Your task to perform on an android device: turn pop-ups on in chrome Image 0: 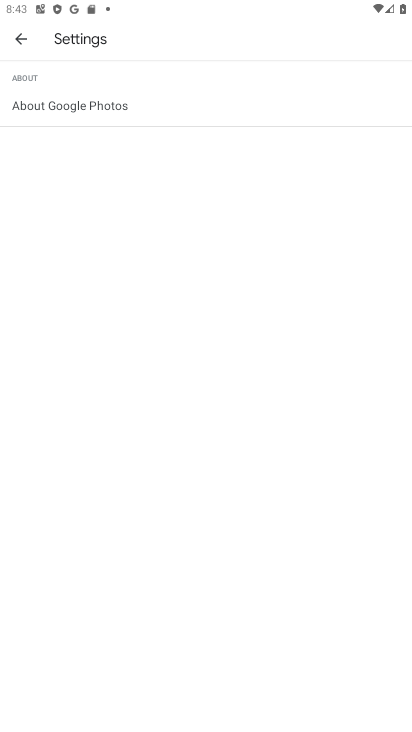
Step 0: press back button
Your task to perform on an android device: turn pop-ups on in chrome Image 1: 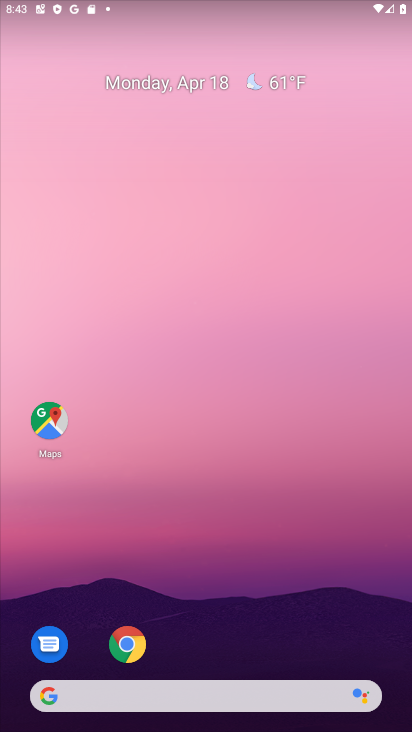
Step 1: click (130, 639)
Your task to perform on an android device: turn pop-ups on in chrome Image 2: 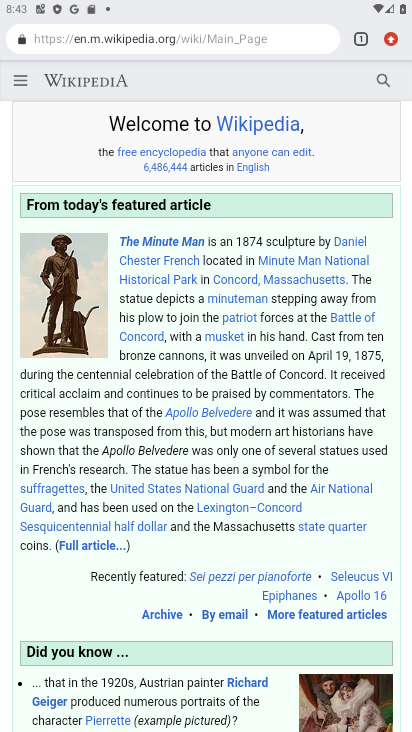
Step 2: drag from (387, 45) to (306, 516)
Your task to perform on an android device: turn pop-ups on in chrome Image 3: 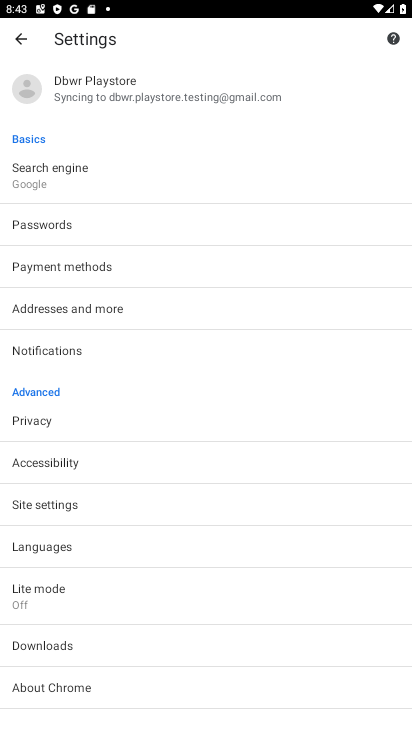
Step 3: click (93, 497)
Your task to perform on an android device: turn pop-ups on in chrome Image 4: 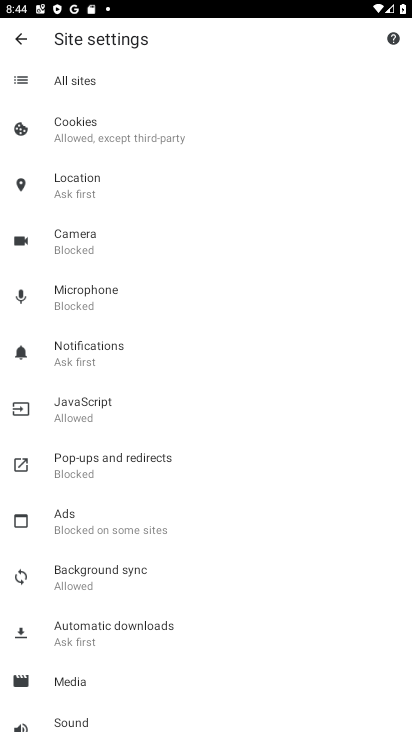
Step 4: click (86, 449)
Your task to perform on an android device: turn pop-ups on in chrome Image 5: 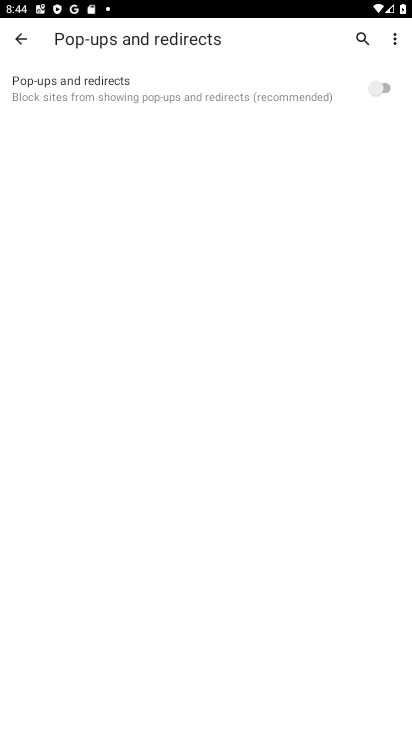
Step 5: click (386, 90)
Your task to perform on an android device: turn pop-ups on in chrome Image 6: 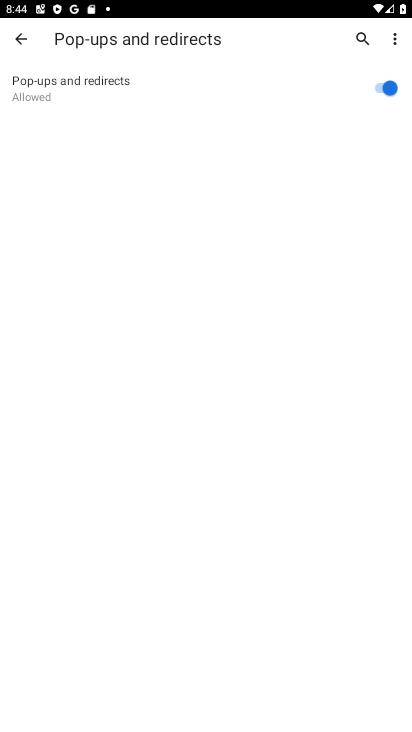
Step 6: task complete